Your task to perform on an android device: visit the assistant section in the google photos Image 0: 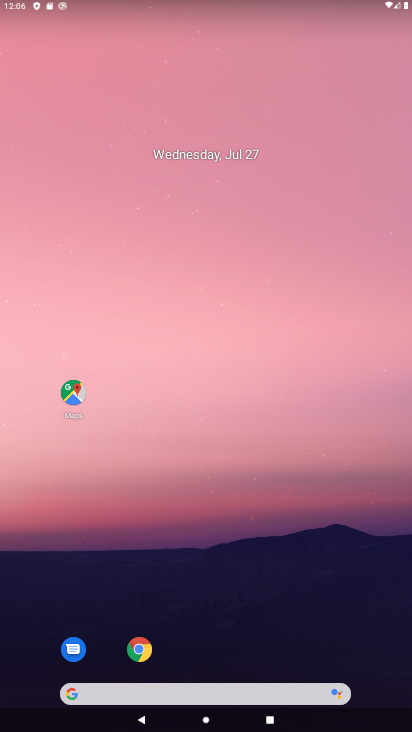
Step 0: drag from (200, 548) to (169, 34)
Your task to perform on an android device: visit the assistant section in the google photos Image 1: 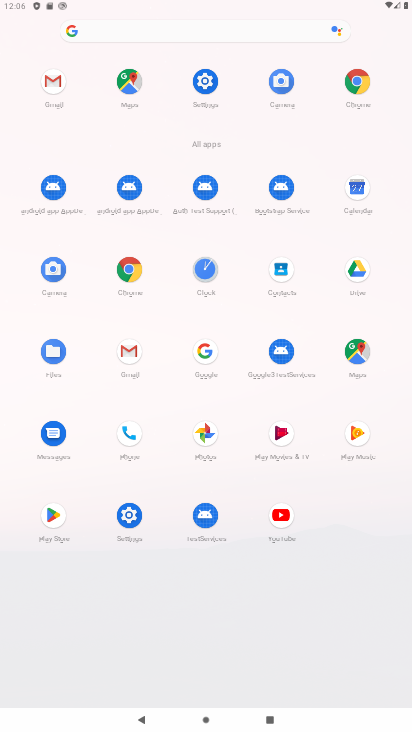
Step 1: click (208, 436)
Your task to perform on an android device: visit the assistant section in the google photos Image 2: 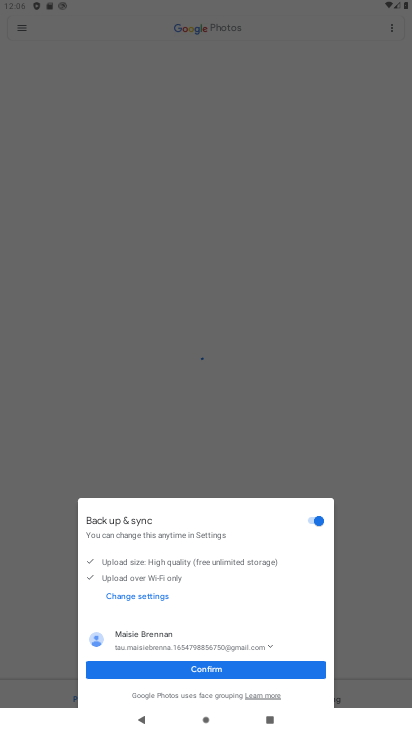
Step 2: click (203, 676)
Your task to perform on an android device: visit the assistant section in the google photos Image 3: 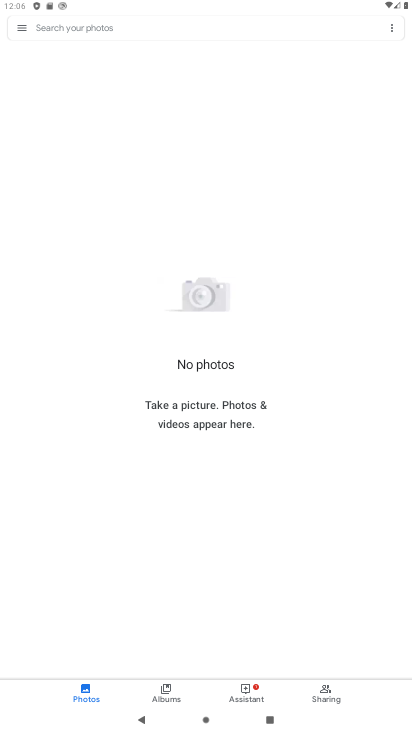
Step 3: click (243, 688)
Your task to perform on an android device: visit the assistant section in the google photos Image 4: 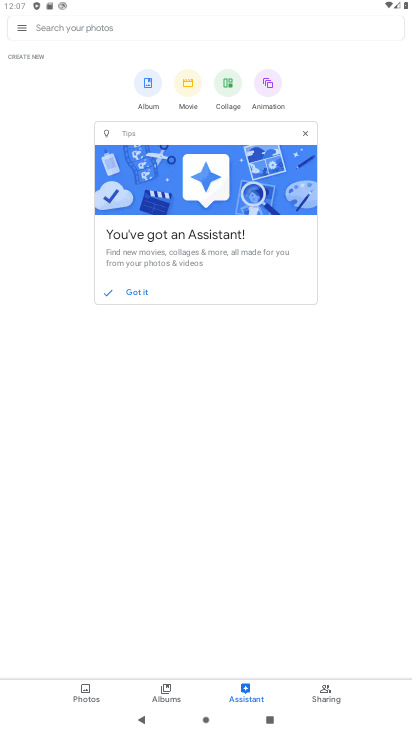
Step 4: task complete